Your task to perform on an android device: toggle notification dots Image 0: 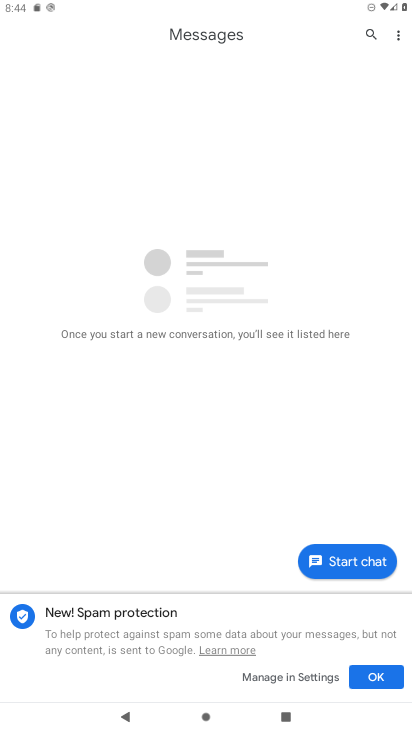
Step 0: press home button
Your task to perform on an android device: toggle notification dots Image 1: 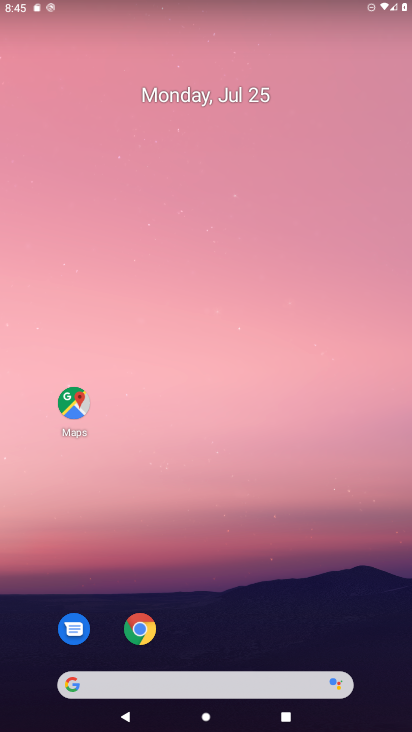
Step 1: drag from (236, 659) to (254, 13)
Your task to perform on an android device: toggle notification dots Image 2: 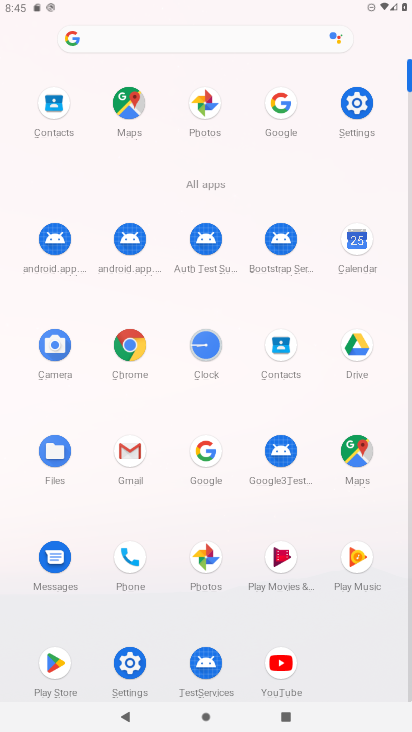
Step 2: click (350, 98)
Your task to perform on an android device: toggle notification dots Image 3: 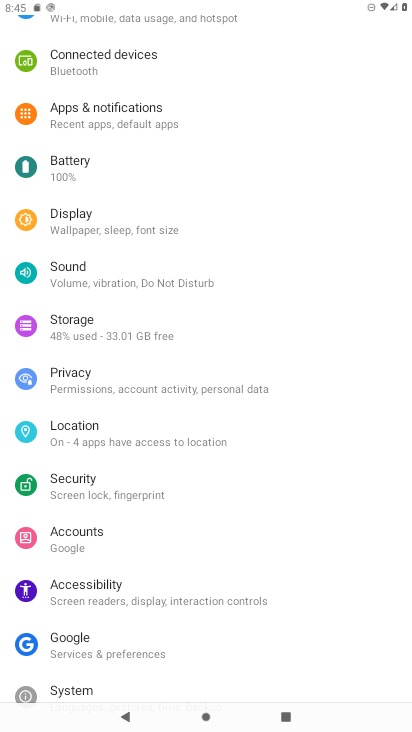
Step 3: click (103, 124)
Your task to perform on an android device: toggle notification dots Image 4: 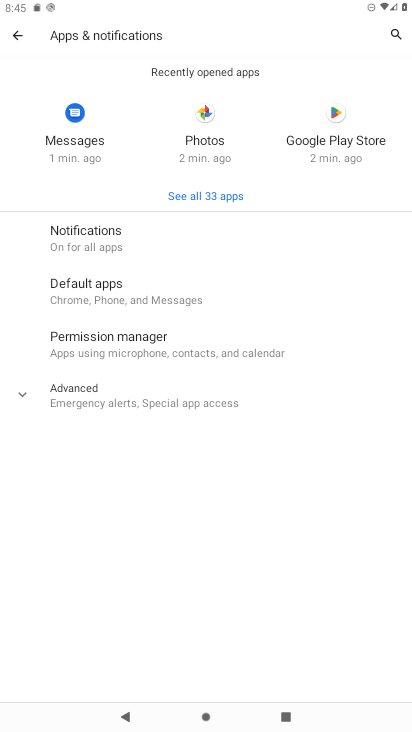
Step 4: click (84, 232)
Your task to perform on an android device: toggle notification dots Image 5: 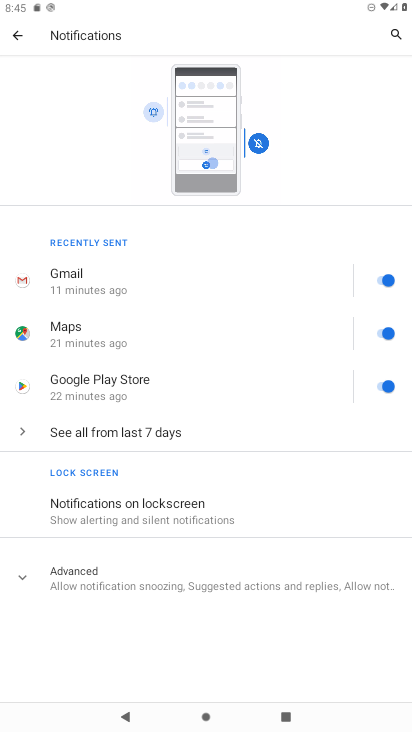
Step 5: drag from (197, 509) to (205, 259)
Your task to perform on an android device: toggle notification dots Image 6: 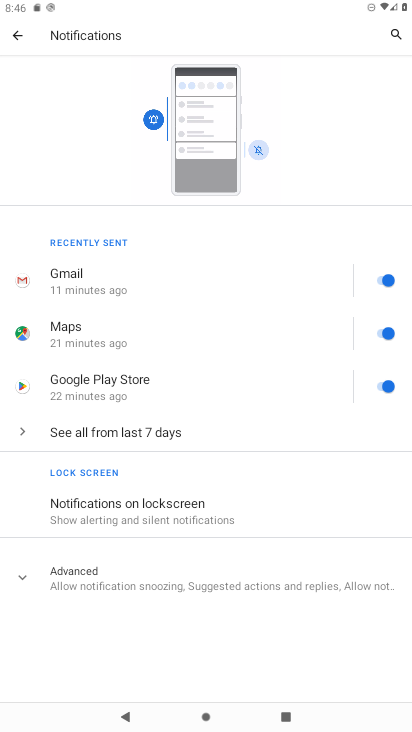
Step 6: click (25, 574)
Your task to perform on an android device: toggle notification dots Image 7: 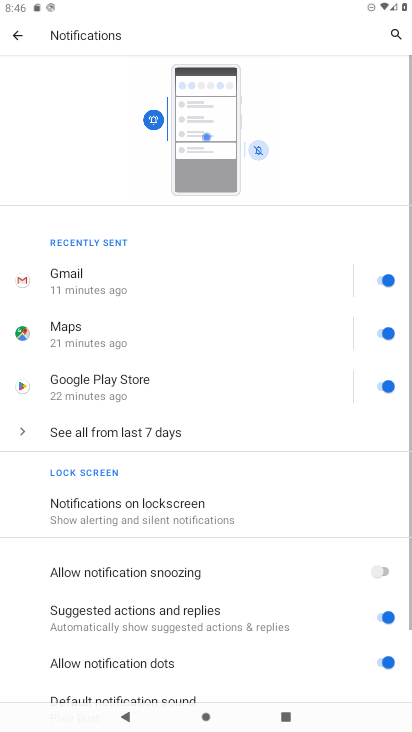
Step 7: drag from (198, 591) to (202, 313)
Your task to perform on an android device: toggle notification dots Image 8: 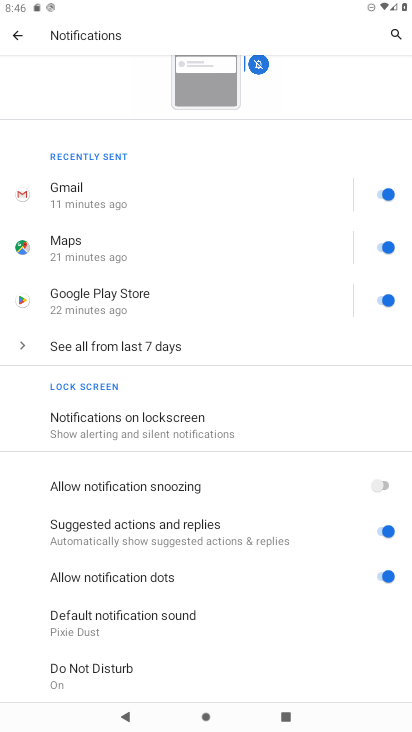
Step 8: click (391, 584)
Your task to perform on an android device: toggle notification dots Image 9: 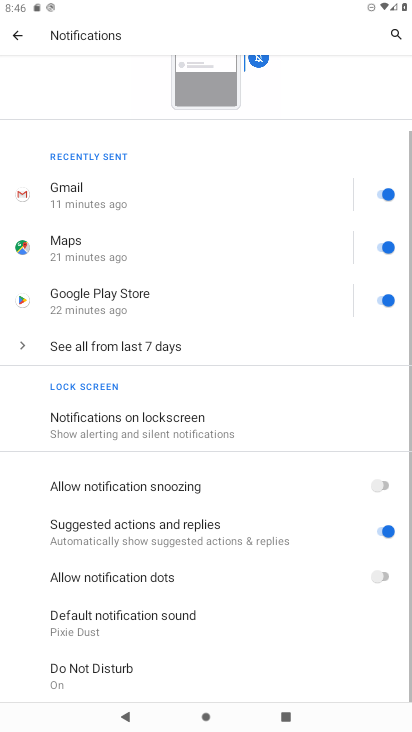
Step 9: task complete